Your task to perform on an android device: Go to notification settings Image 0: 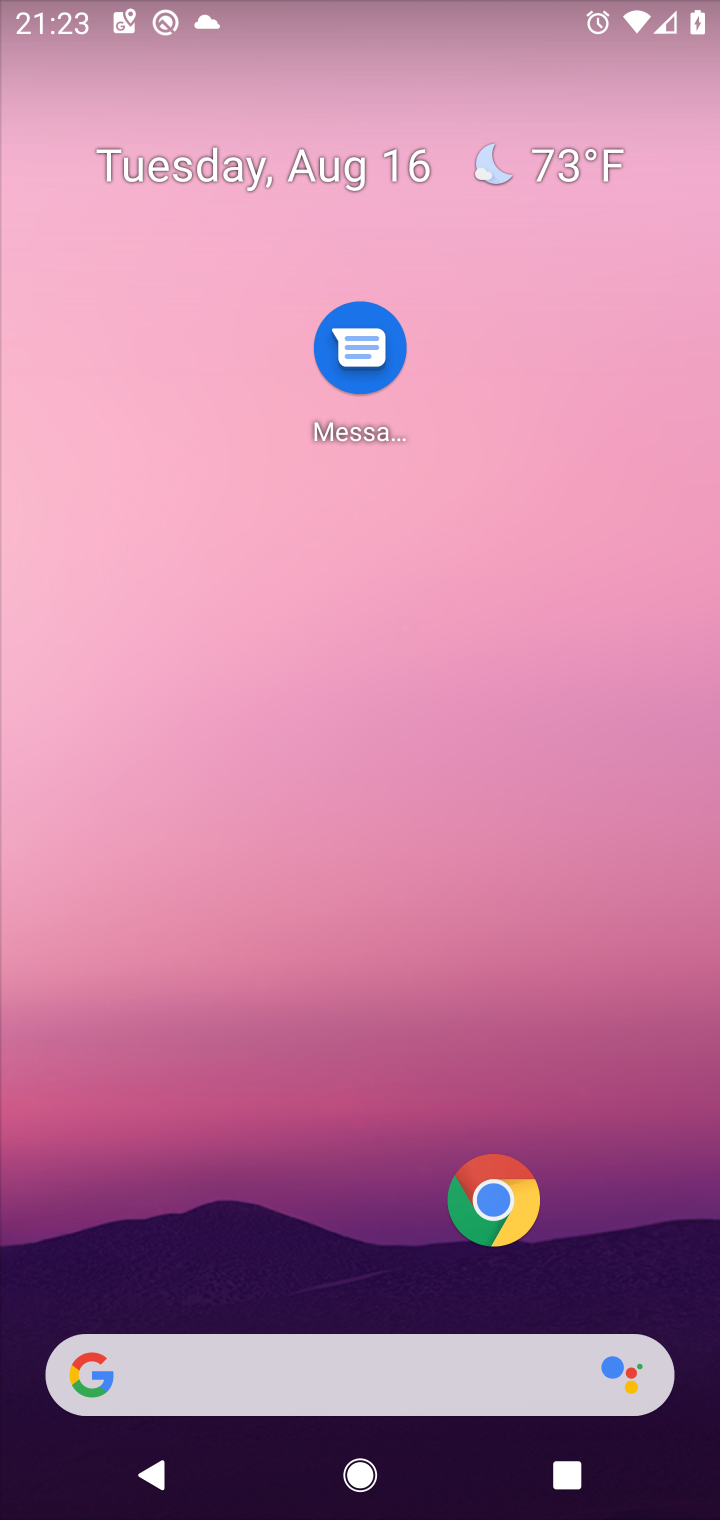
Step 0: drag from (145, 1164) to (260, 674)
Your task to perform on an android device: Go to notification settings Image 1: 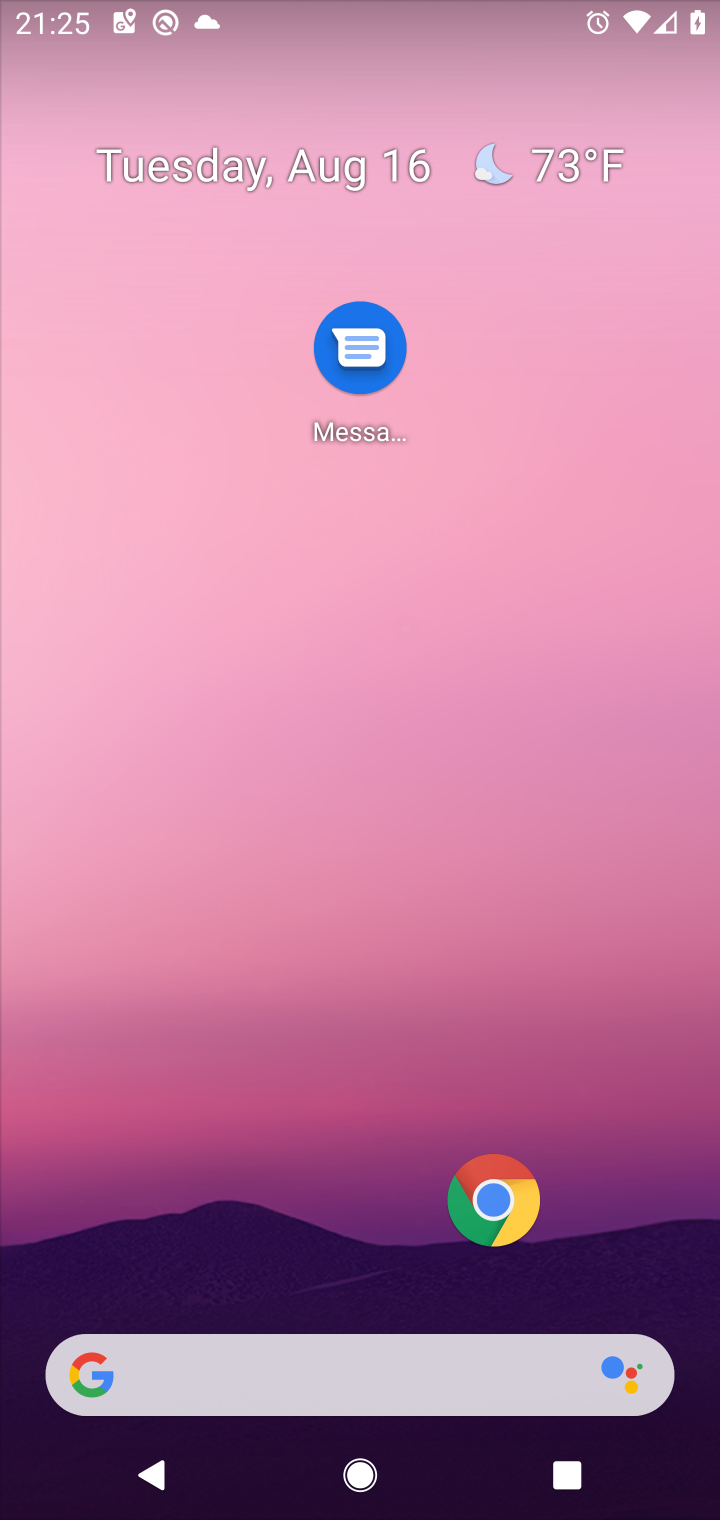
Step 1: drag from (56, 1451) to (390, 527)
Your task to perform on an android device: Go to notification settings Image 2: 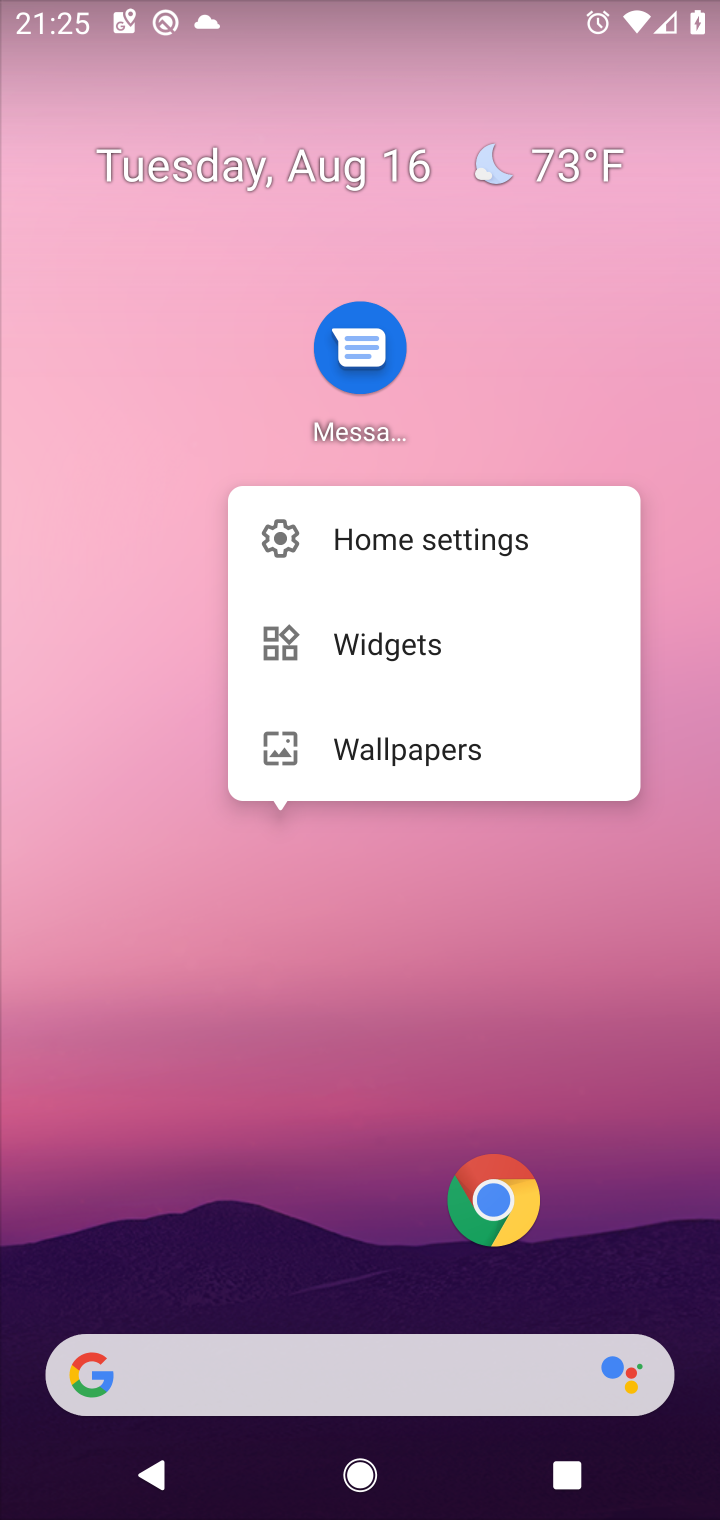
Step 2: click (62, 1443)
Your task to perform on an android device: Go to notification settings Image 3: 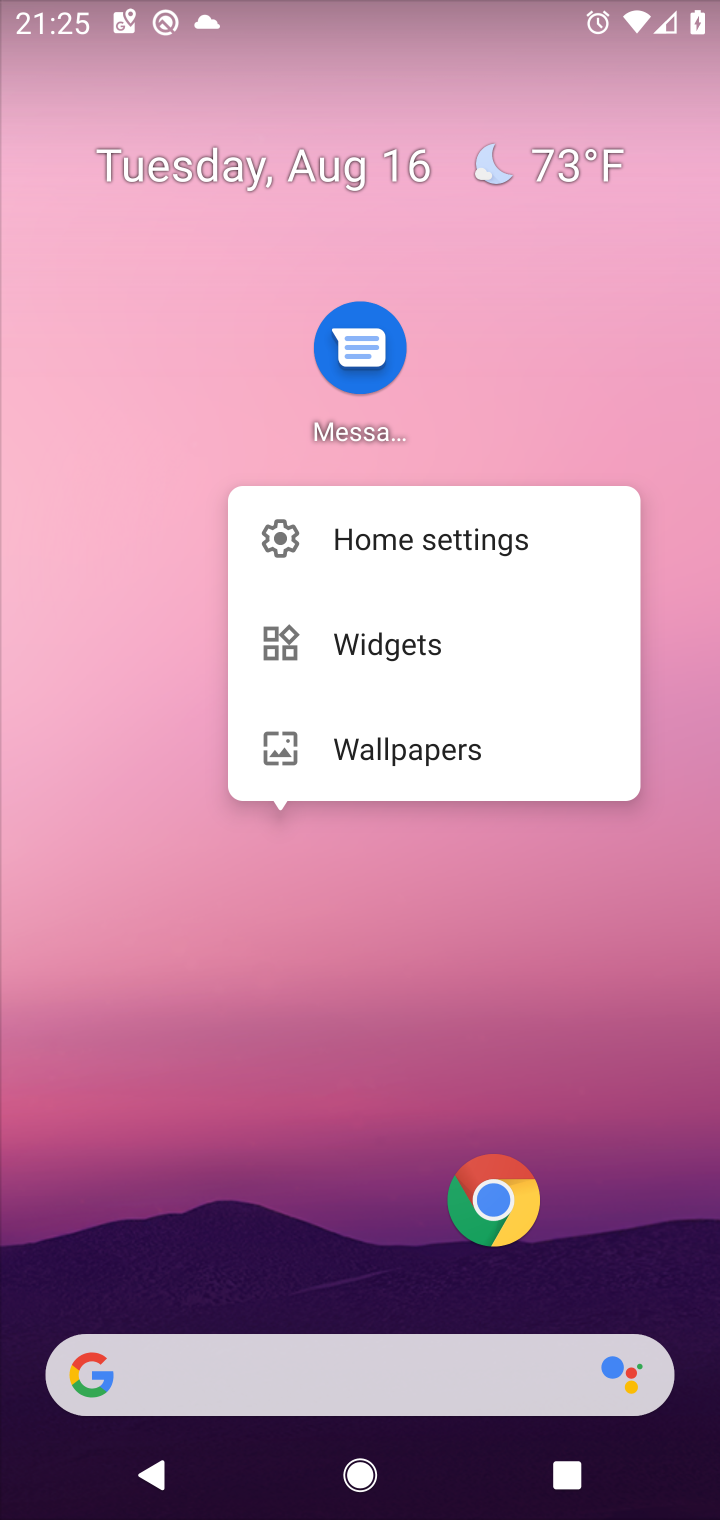
Step 3: task complete